Your task to perform on an android device: Search for pizza restaurants on Maps Image 0: 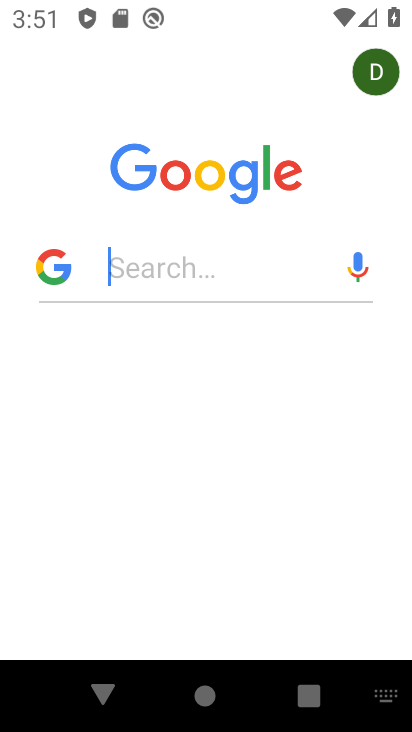
Step 0: press home button
Your task to perform on an android device: Search for pizza restaurants on Maps Image 1: 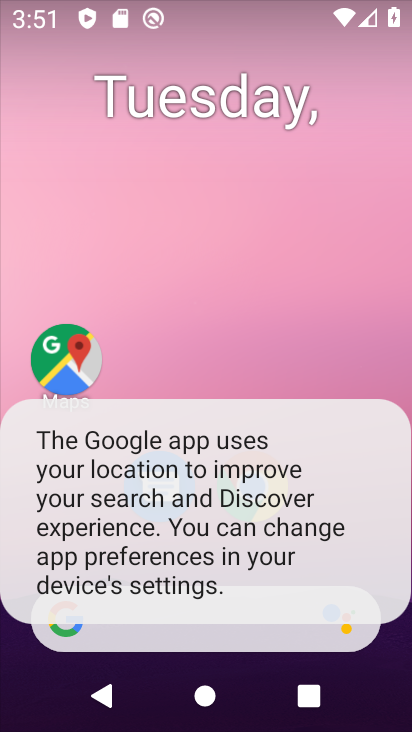
Step 1: click (107, 305)
Your task to perform on an android device: Search for pizza restaurants on Maps Image 2: 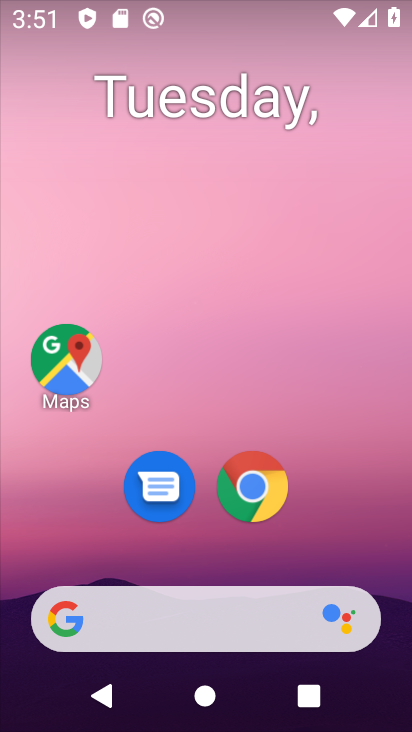
Step 2: click (51, 345)
Your task to perform on an android device: Search for pizza restaurants on Maps Image 3: 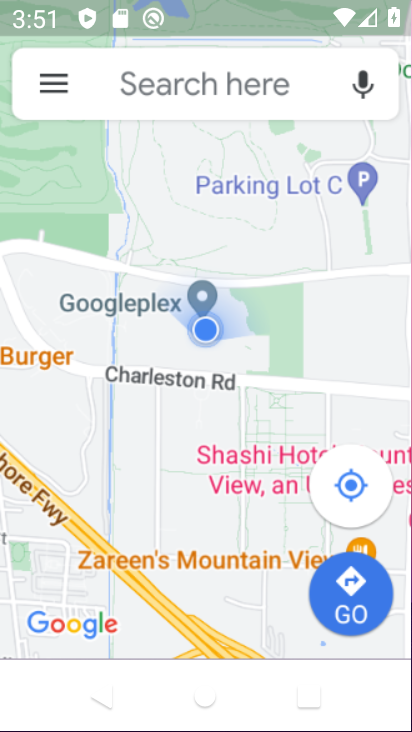
Step 3: click (51, 345)
Your task to perform on an android device: Search for pizza restaurants on Maps Image 4: 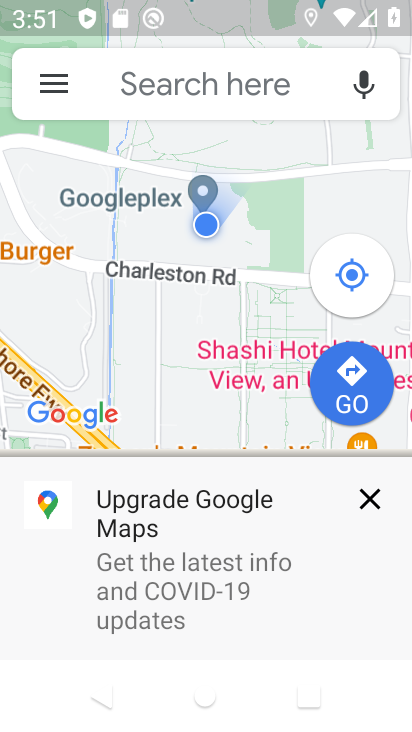
Step 4: click (115, 57)
Your task to perform on an android device: Search for pizza restaurants on Maps Image 5: 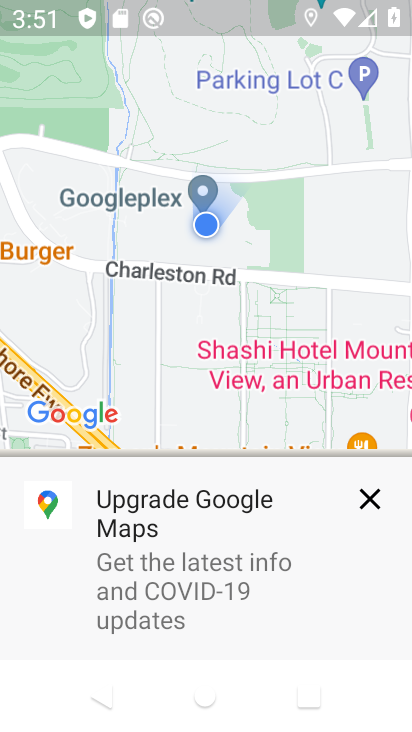
Step 5: press back button
Your task to perform on an android device: Search for pizza restaurants on Maps Image 6: 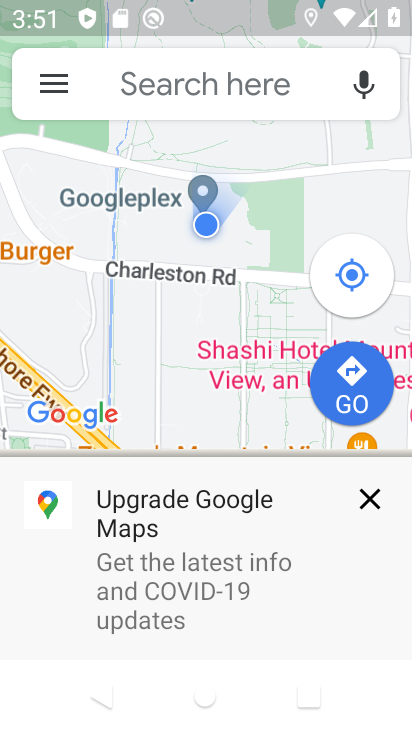
Step 6: click (196, 129)
Your task to perform on an android device: Search for pizza restaurants on Maps Image 7: 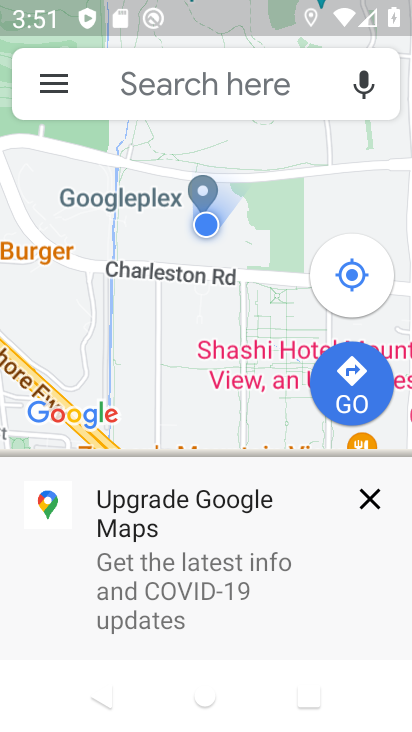
Step 7: click (207, 93)
Your task to perform on an android device: Search for pizza restaurants on Maps Image 8: 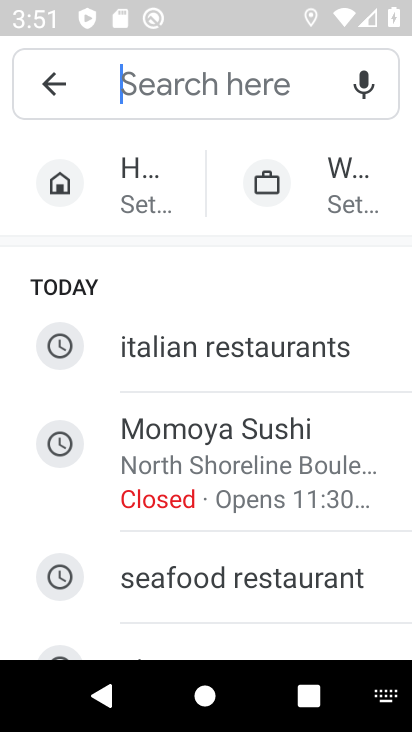
Step 8: drag from (233, 501) to (210, 177)
Your task to perform on an android device: Search for pizza restaurants on Maps Image 9: 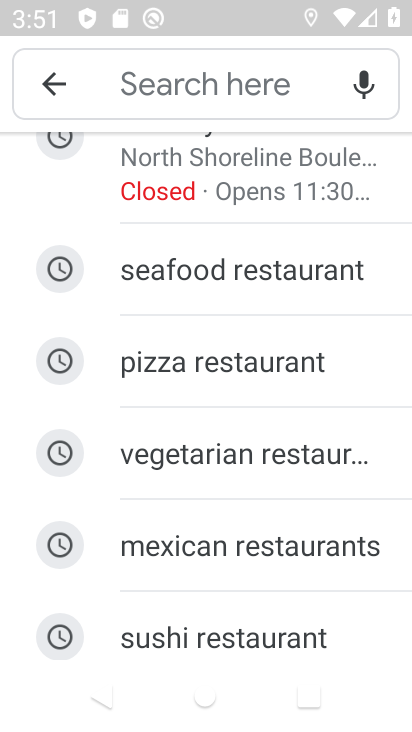
Step 9: click (171, 365)
Your task to perform on an android device: Search for pizza restaurants on Maps Image 10: 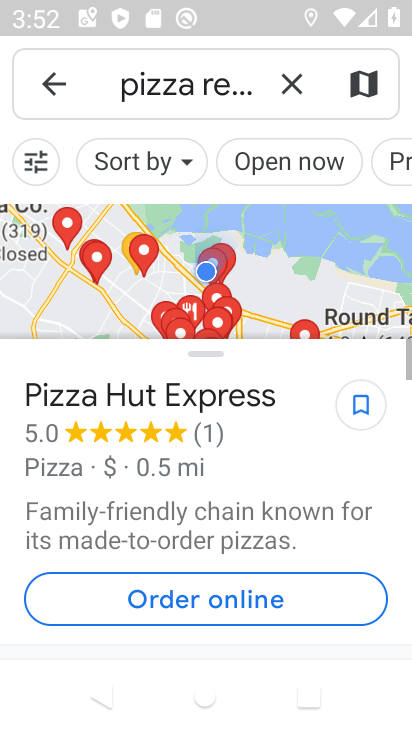
Step 10: task complete